Your task to perform on an android device: Search for vegetarian restaurants on Maps Image 0: 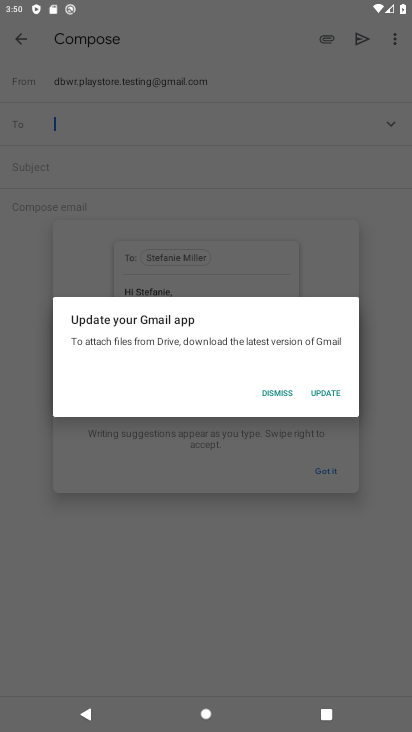
Step 0: press home button
Your task to perform on an android device: Search for vegetarian restaurants on Maps Image 1: 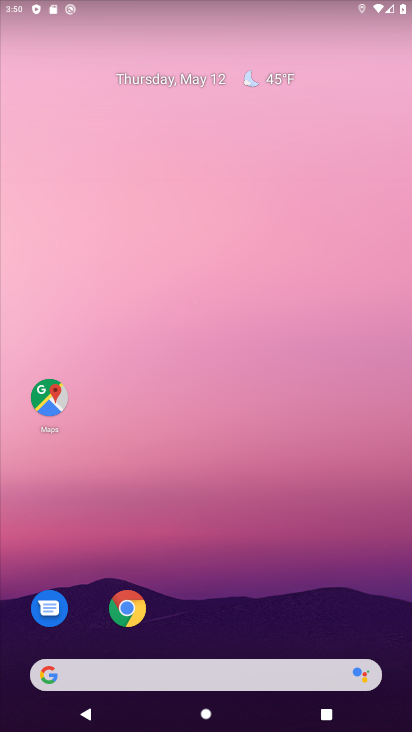
Step 1: click (48, 396)
Your task to perform on an android device: Search for vegetarian restaurants on Maps Image 2: 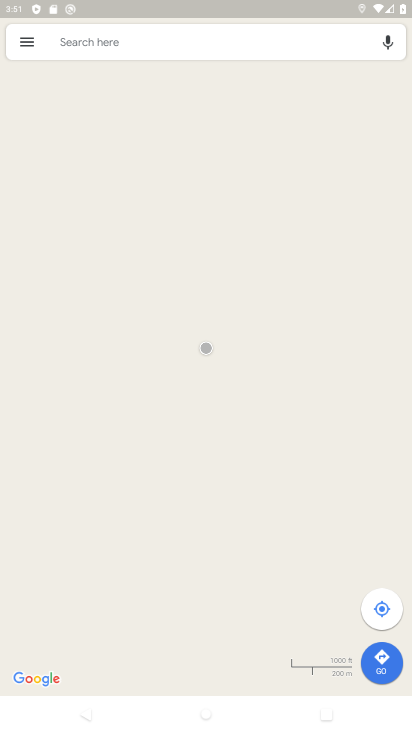
Step 2: click (132, 35)
Your task to perform on an android device: Search for vegetarian restaurants on Maps Image 3: 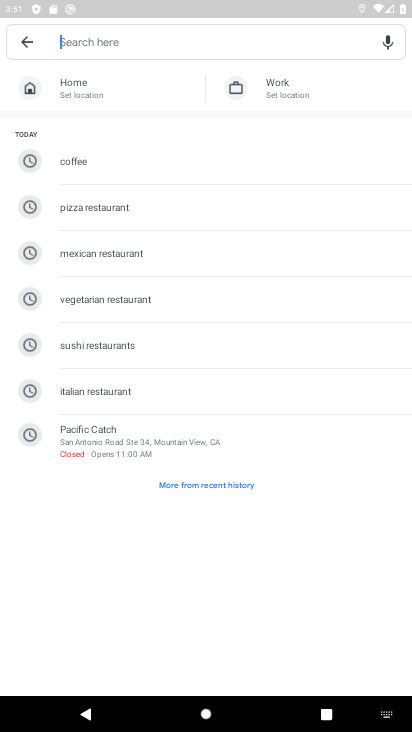
Step 3: type " vegetarian restaurants"
Your task to perform on an android device: Search for vegetarian restaurants on Maps Image 4: 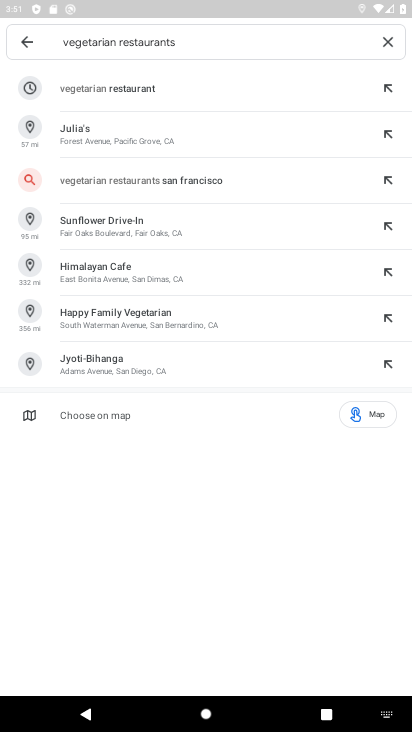
Step 4: click (133, 84)
Your task to perform on an android device: Search for vegetarian restaurants on Maps Image 5: 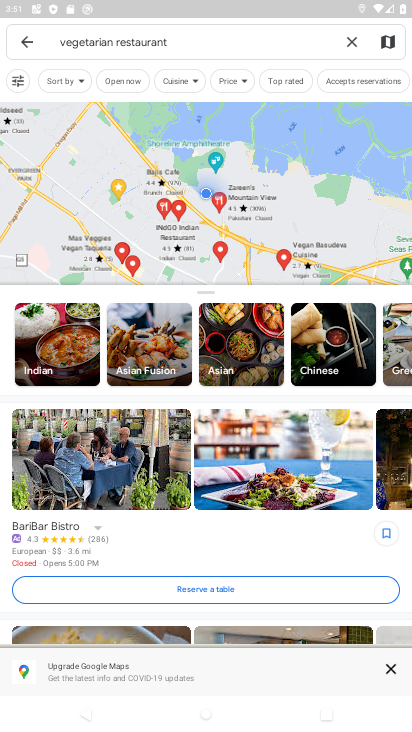
Step 5: task complete